Your task to perform on an android device: Search for pizza restaurants on Maps Image 0: 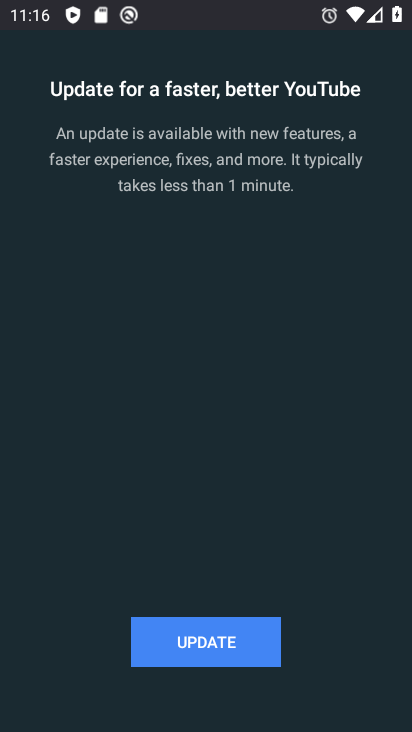
Step 0: press home button
Your task to perform on an android device: Search for pizza restaurants on Maps Image 1: 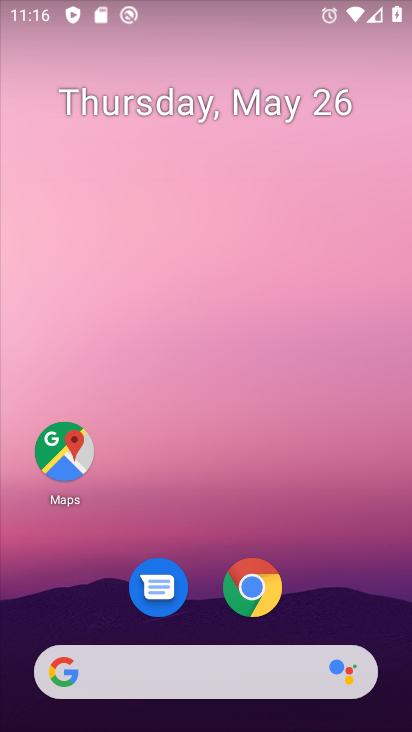
Step 1: drag from (235, 698) to (293, 200)
Your task to perform on an android device: Search for pizza restaurants on Maps Image 2: 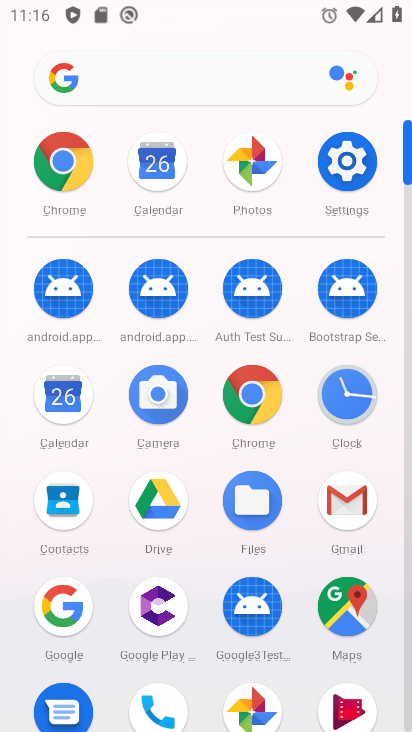
Step 2: click (348, 616)
Your task to perform on an android device: Search for pizza restaurants on Maps Image 3: 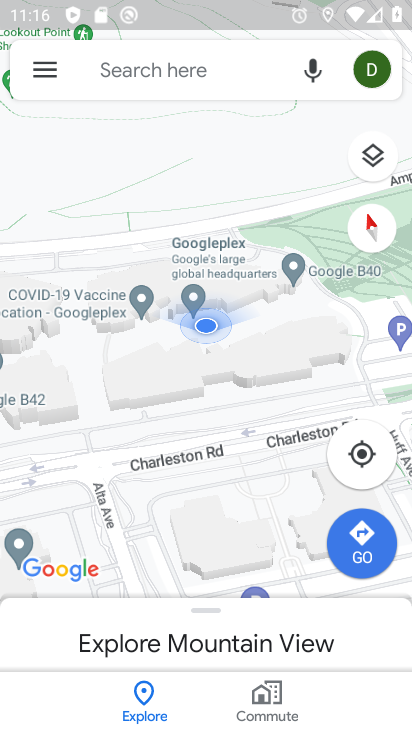
Step 3: click (149, 69)
Your task to perform on an android device: Search for pizza restaurants on Maps Image 4: 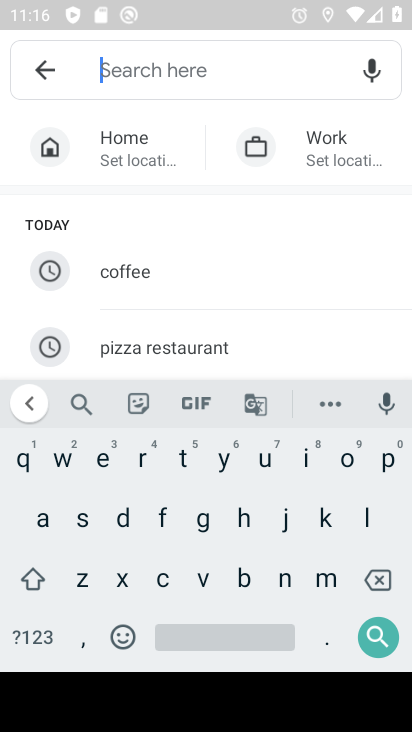
Step 4: click (198, 352)
Your task to perform on an android device: Search for pizza restaurants on Maps Image 5: 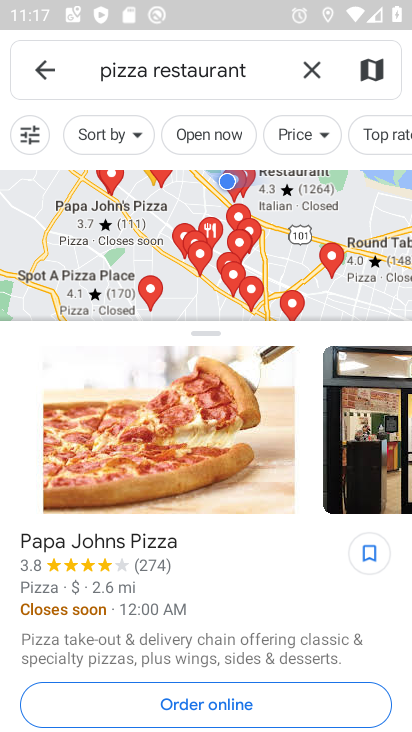
Step 5: click (124, 217)
Your task to perform on an android device: Search for pizza restaurants on Maps Image 6: 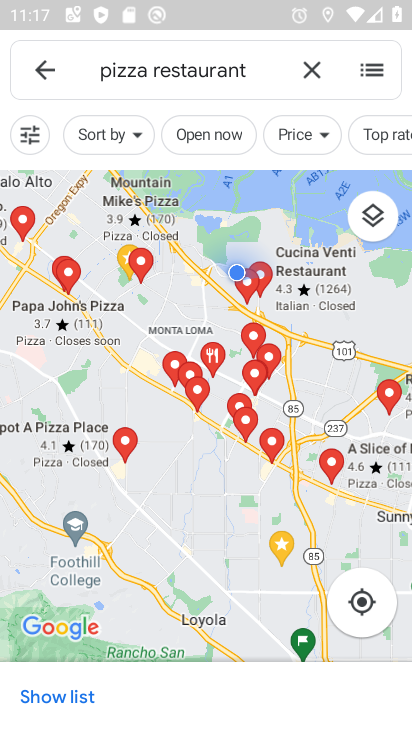
Step 6: task complete